Your task to perform on an android device: Go to settings Image 0: 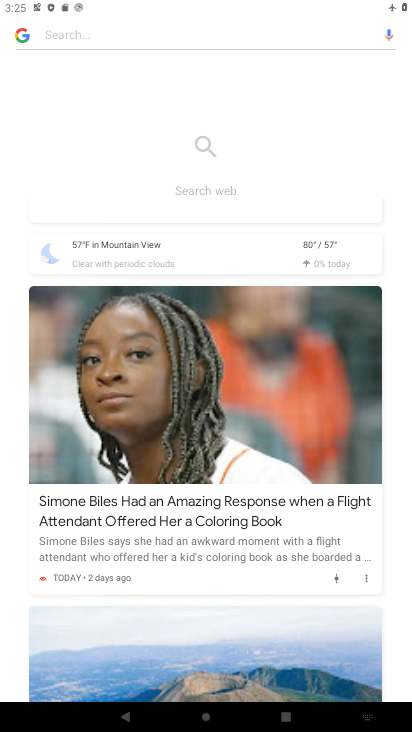
Step 0: drag from (183, 498) to (209, 159)
Your task to perform on an android device: Go to settings Image 1: 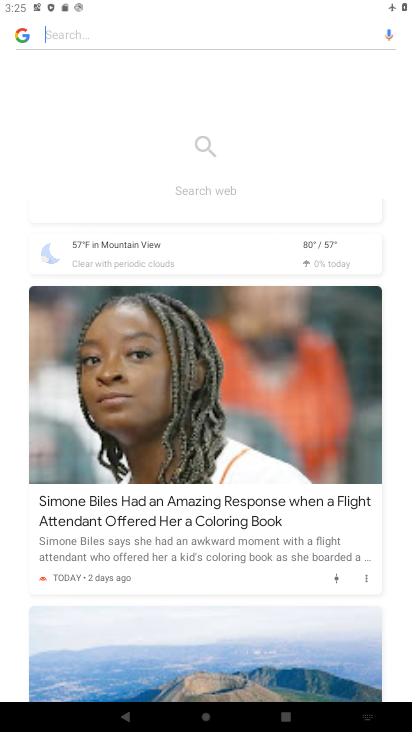
Step 1: drag from (257, 351) to (253, 518)
Your task to perform on an android device: Go to settings Image 2: 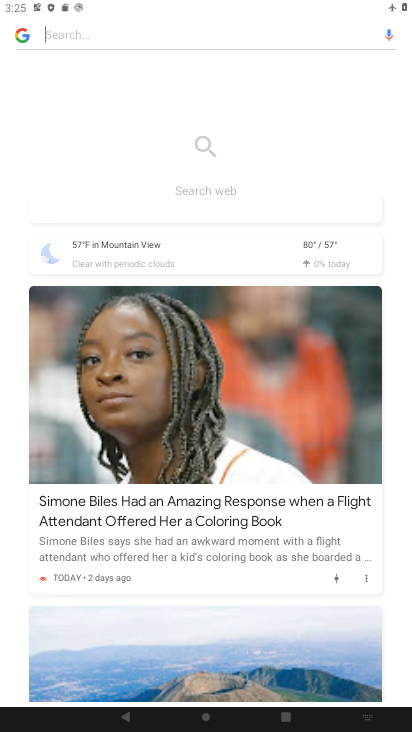
Step 2: drag from (195, 284) to (275, 458)
Your task to perform on an android device: Go to settings Image 3: 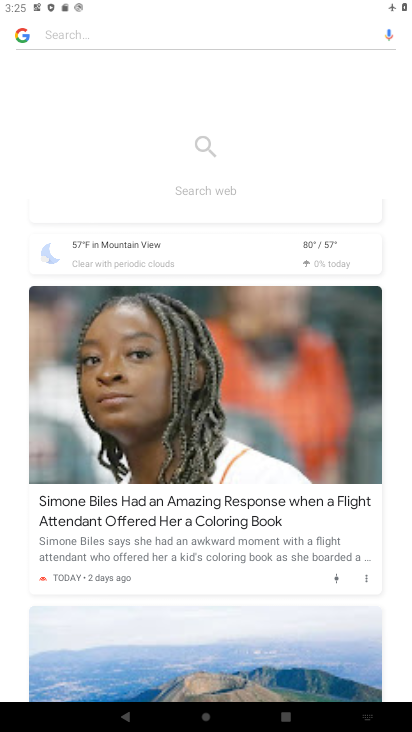
Step 3: press back button
Your task to perform on an android device: Go to settings Image 4: 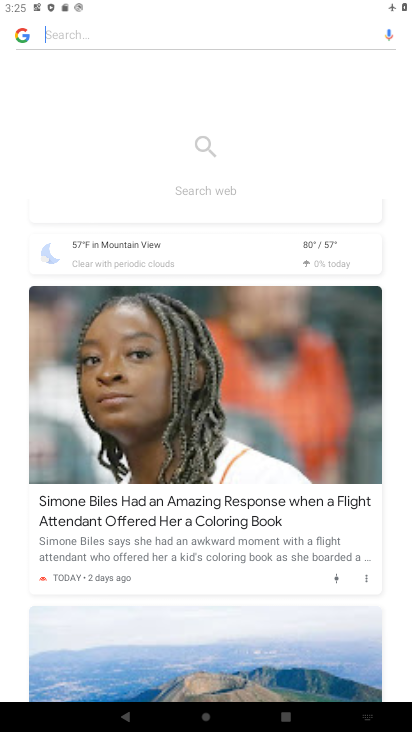
Step 4: press back button
Your task to perform on an android device: Go to settings Image 5: 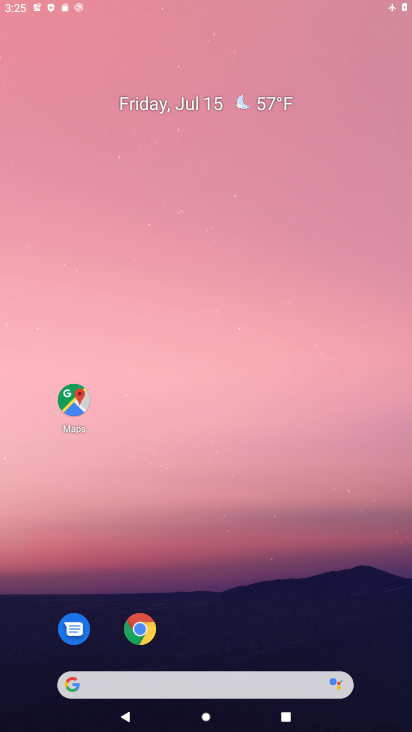
Step 5: press back button
Your task to perform on an android device: Go to settings Image 6: 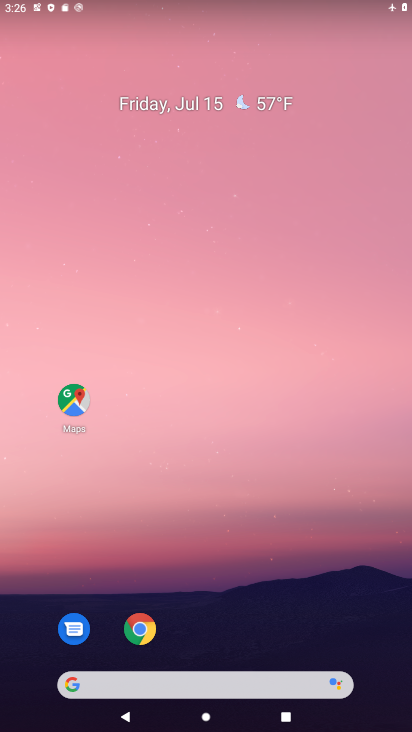
Step 6: drag from (244, 675) to (193, 141)
Your task to perform on an android device: Go to settings Image 7: 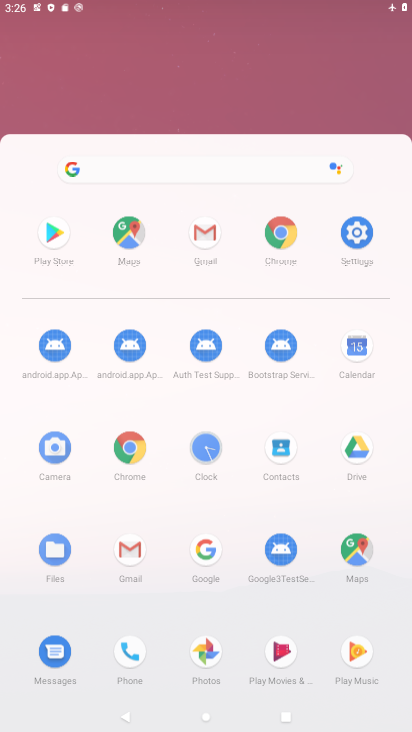
Step 7: drag from (211, 505) to (200, 95)
Your task to perform on an android device: Go to settings Image 8: 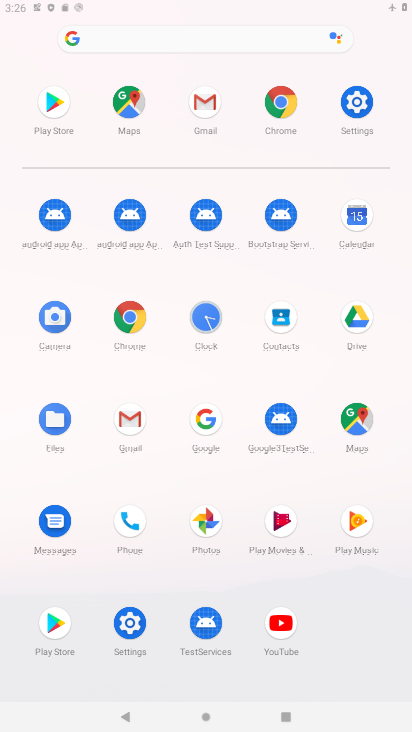
Step 8: drag from (194, 421) to (190, 85)
Your task to perform on an android device: Go to settings Image 9: 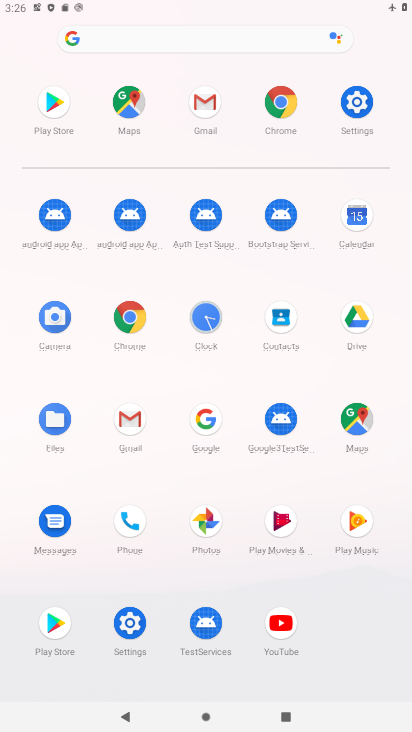
Step 9: click (356, 101)
Your task to perform on an android device: Go to settings Image 10: 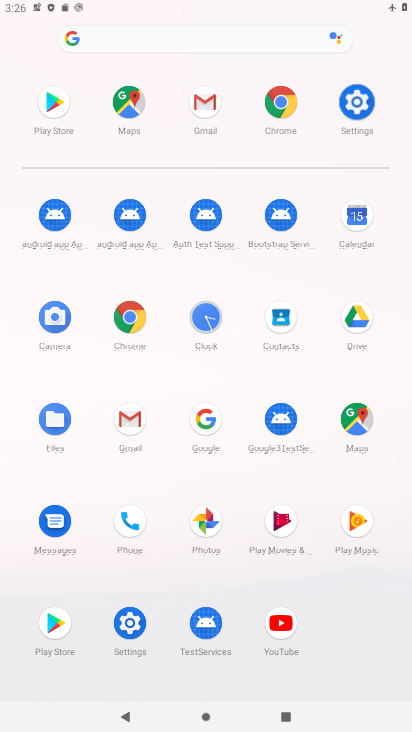
Step 10: click (356, 101)
Your task to perform on an android device: Go to settings Image 11: 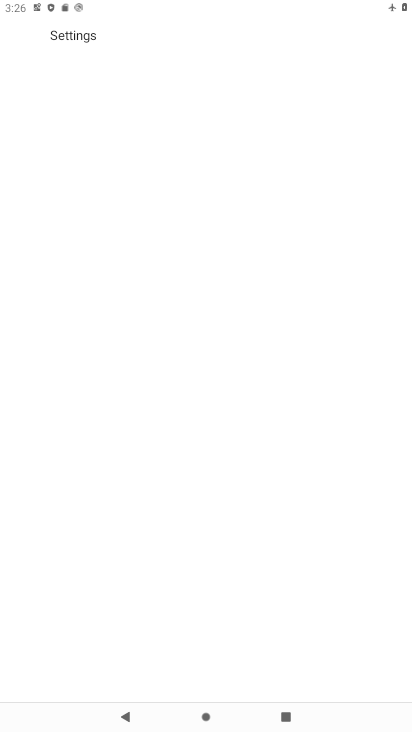
Step 11: click (357, 100)
Your task to perform on an android device: Go to settings Image 12: 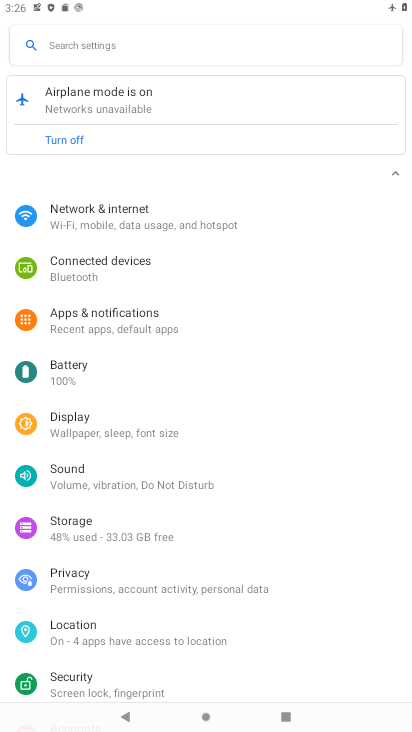
Step 12: task complete